Your task to perform on an android device: see tabs open on other devices in the chrome app Image 0: 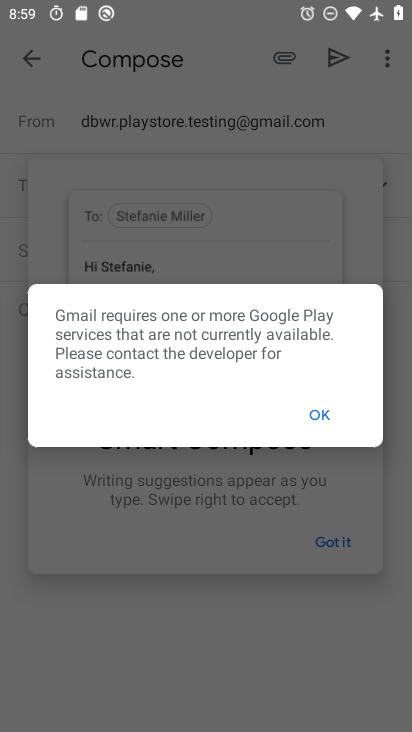
Step 0: press home button
Your task to perform on an android device: see tabs open on other devices in the chrome app Image 1: 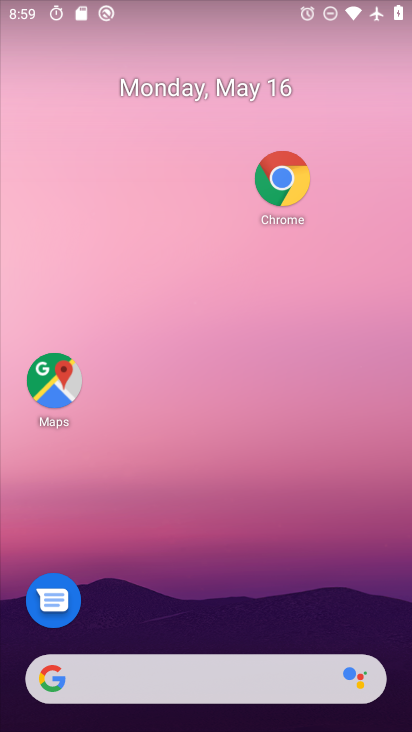
Step 1: click (294, 188)
Your task to perform on an android device: see tabs open on other devices in the chrome app Image 2: 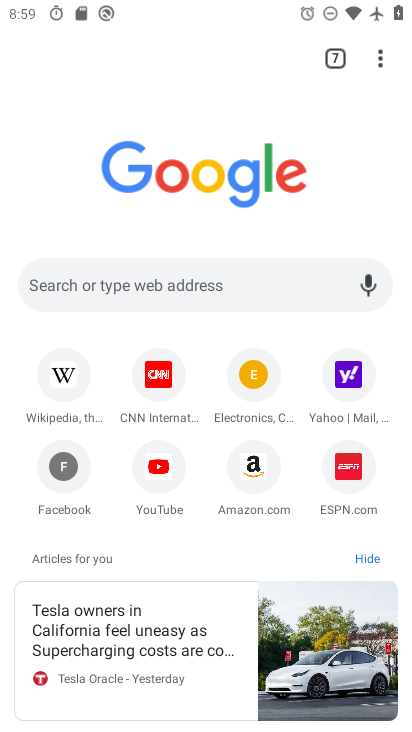
Step 2: task complete